Your task to perform on an android device: See recent photos Image 0: 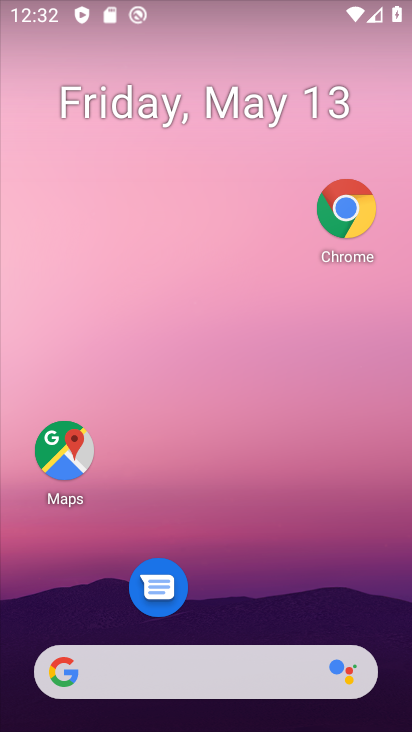
Step 0: drag from (242, 589) to (311, 154)
Your task to perform on an android device: See recent photos Image 1: 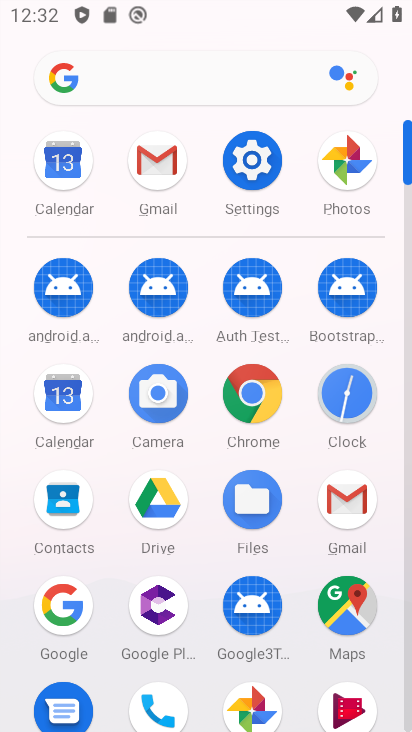
Step 1: click (254, 703)
Your task to perform on an android device: See recent photos Image 2: 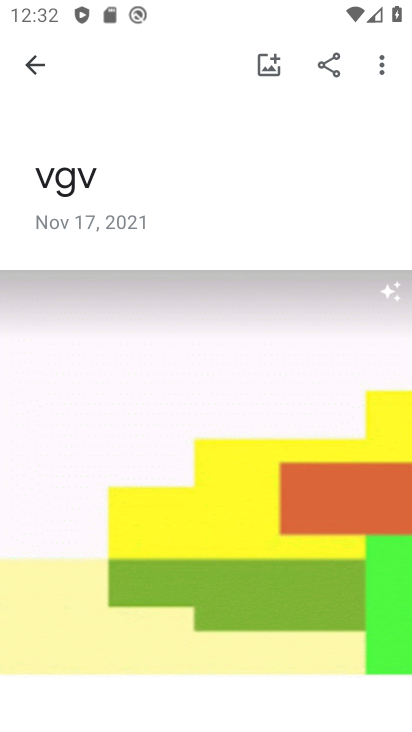
Step 2: click (43, 64)
Your task to perform on an android device: See recent photos Image 3: 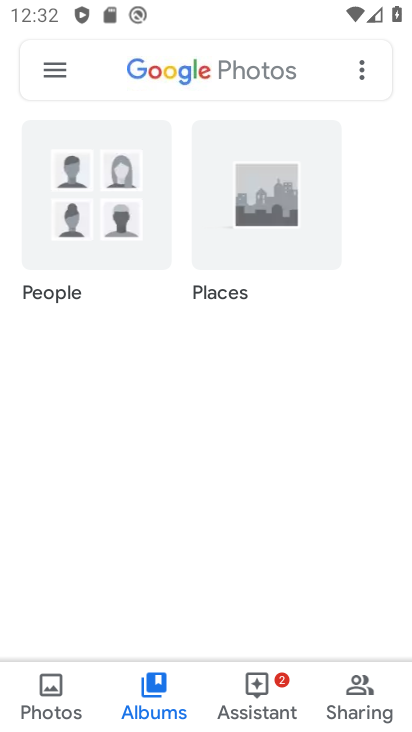
Step 3: click (49, 683)
Your task to perform on an android device: See recent photos Image 4: 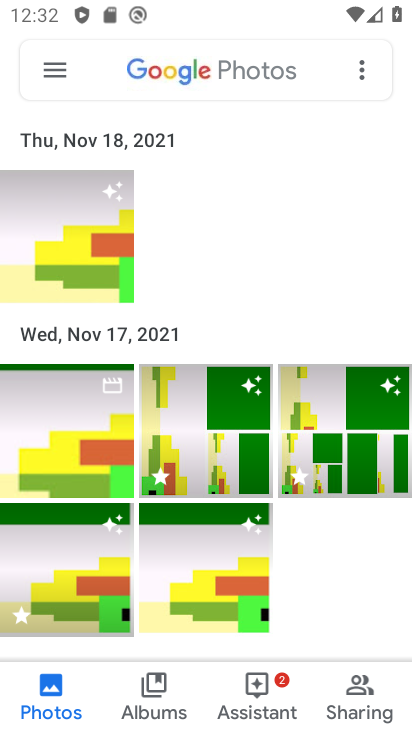
Step 4: task complete